Your task to perform on an android device: Open calendar and show me the fourth week of next month Image 0: 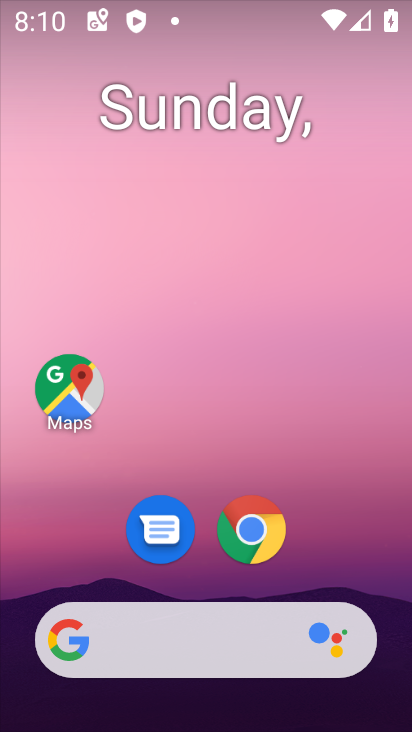
Step 0: drag from (365, 582) to (353, 46)
Your task to perform on an android device: Open calendar and show me the fourth week of next month Image 1: 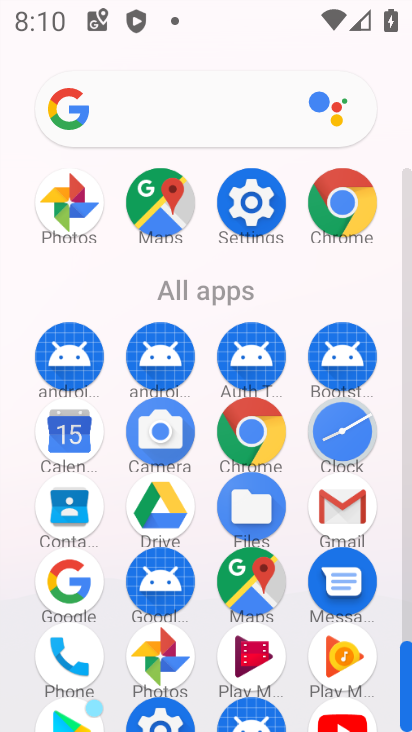
Step 1: drag from (291, 634) to (309, 352)
Your task to perform on an android device: Open calendar and show me the fourth week of next month Image 2: 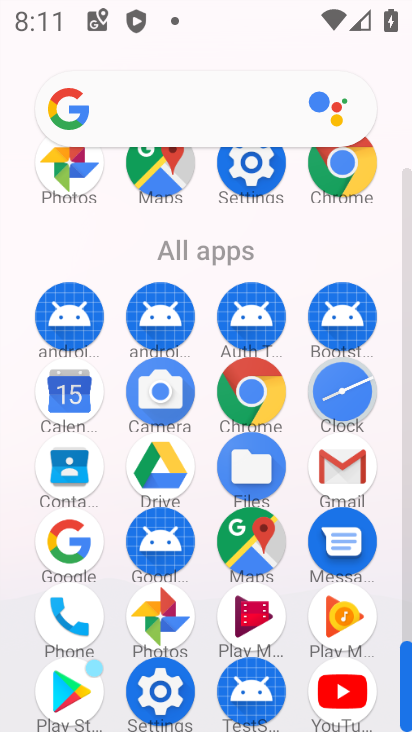
Step 2: click (75, 398)
Your task to perform on an android device: Open calendar and show me the fourth week of next month Image 3: 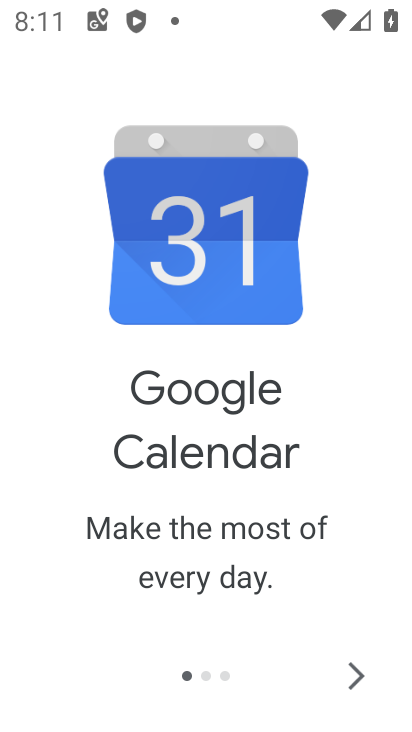
Step 3: click (348, 680)
Your task to perform on an android device: Open calendar and show me the fourth week of next month Image 4: 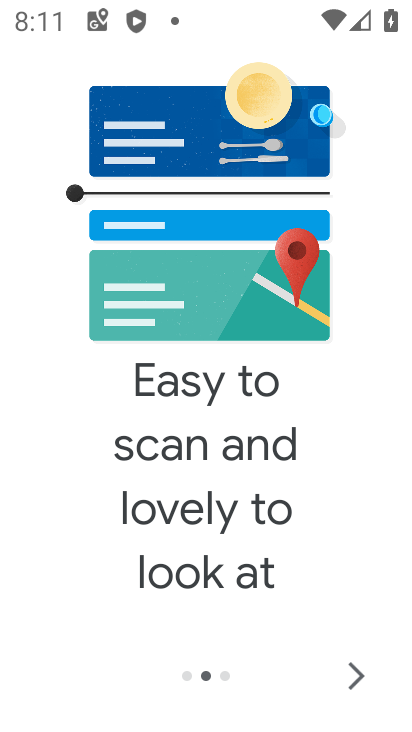
Step 4: click (350, 677)
Your task to perform on an android device: Open calendar and show me the fourth week of next month Image 5: 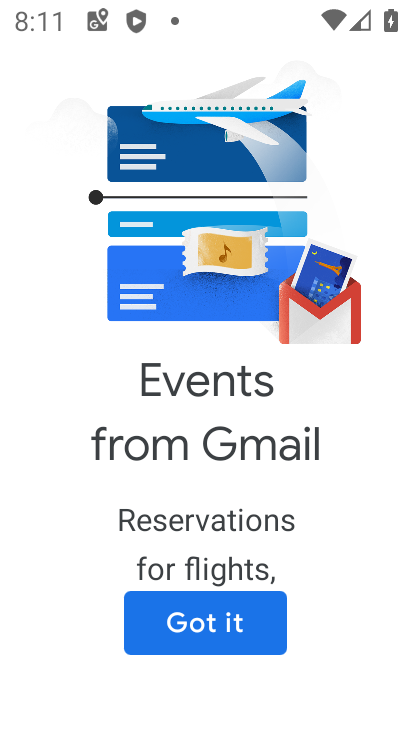
Step 5: click (229, 645)
Your task to perform on an android device: Open calendar and show me the fourth week of next month Image 6: 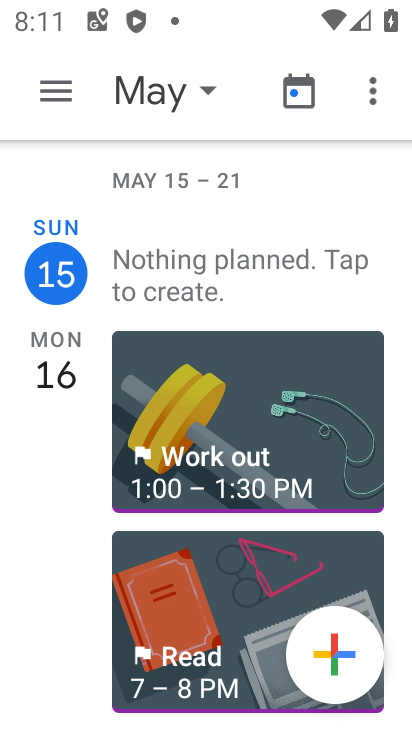
Step 6: click (173, 80)
Your task to perform on an android device: Open calendar and show me the fourth week of next month Image 7: 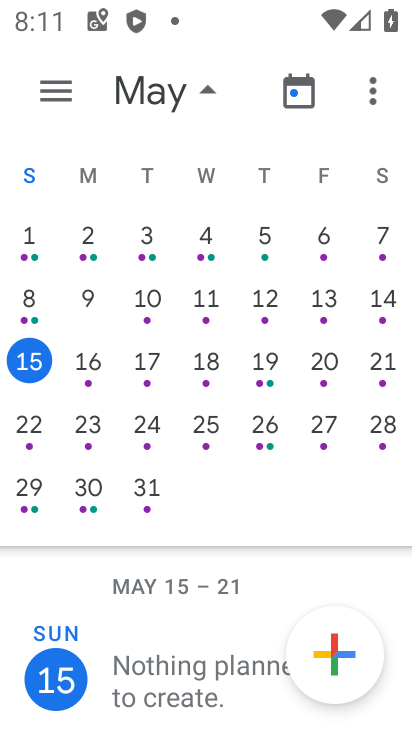
Step 7: drag from (267, 405) to (0, 406)
Your task to perform on an android device: Open calendar and show me the fourth week of next month Image 8: 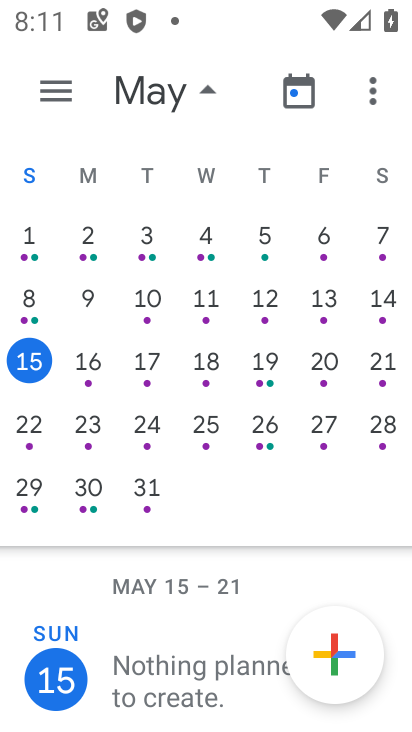
Step 8: drag from (367, 403) to (11, 381)
Your task to perform on an android device: Open calendar and show me the fourth week of next month Image 9: 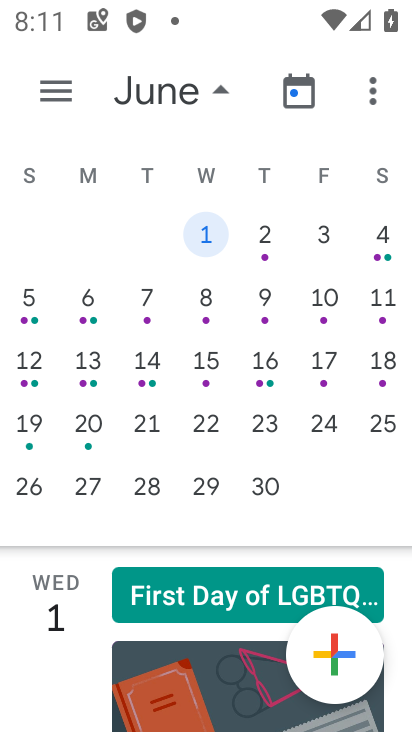
Step 9: click (18, 427)
Your task to perform on an android device: Open calendar and show me the fourth week of next month Image 10: 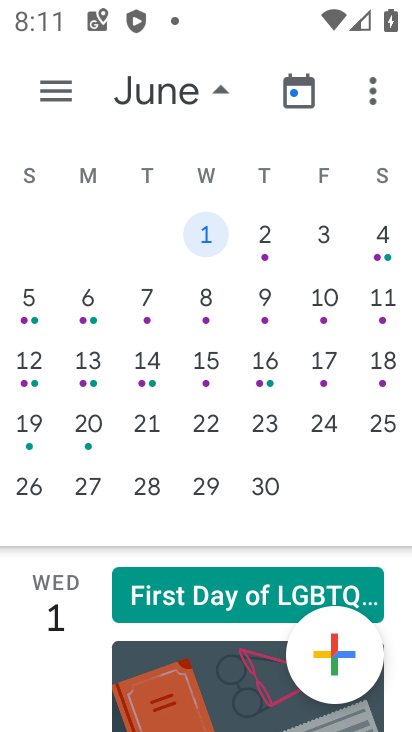
Step 10: click (31, 434)
Your task to perform on an android device: Open calendar and show me the fourth week of next month Image 11: 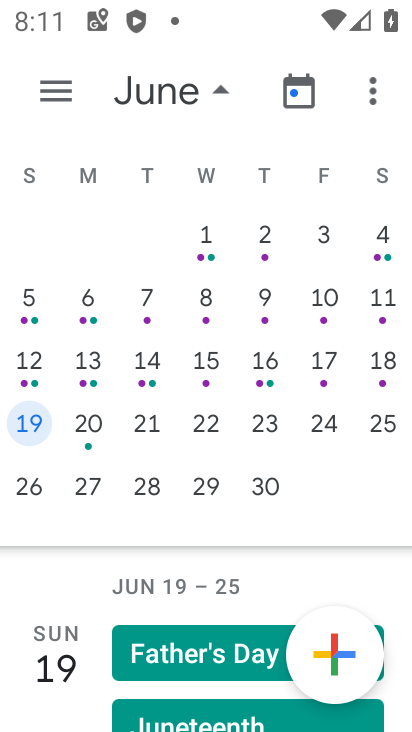
Step 11: task complete